Your task to perform on an android device: turn on priority inbox in the gmail app Image 0: 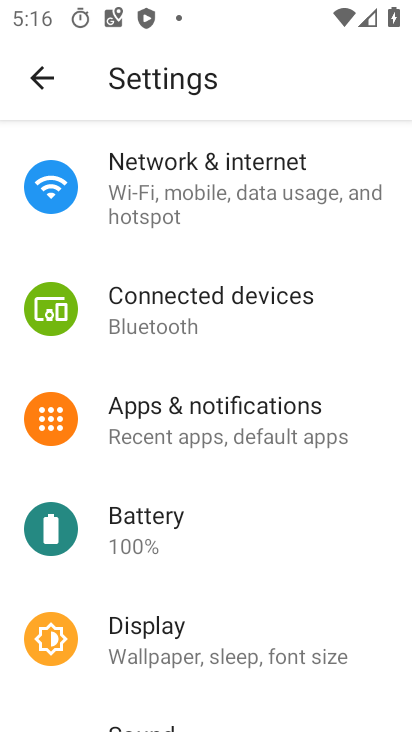
Step 0: press back button
Your task to perform on an android device: turn on priority inbox in the gmail app Image 1: 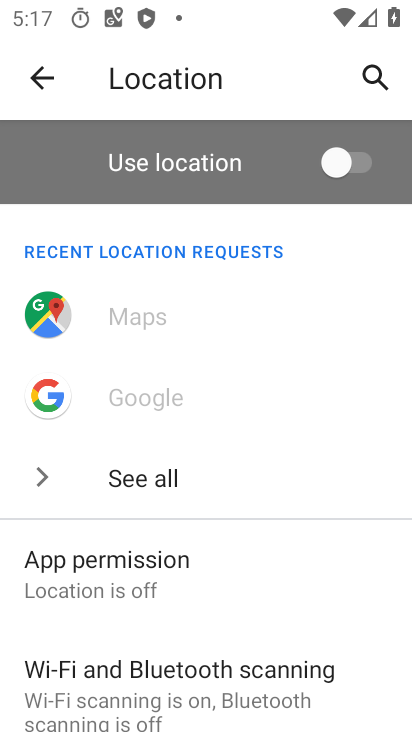
Step 1: press back button
Your task to perform on an android device: turn on priority inbox in the gmail app Image 2: 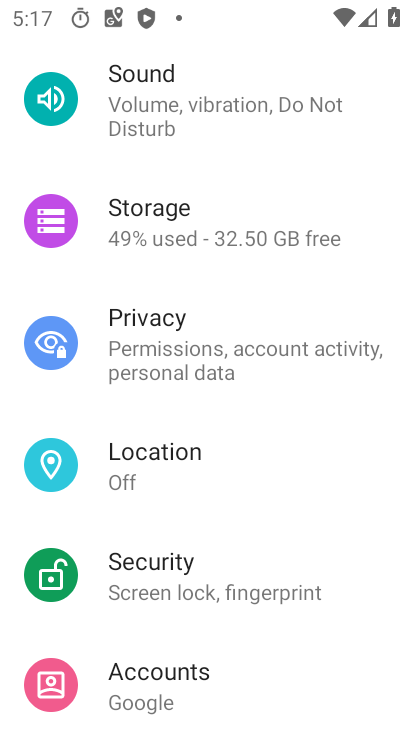
Step 2: press back button
Your task to perform on an android device: turn on priority inbox in the gmail app Image 3: 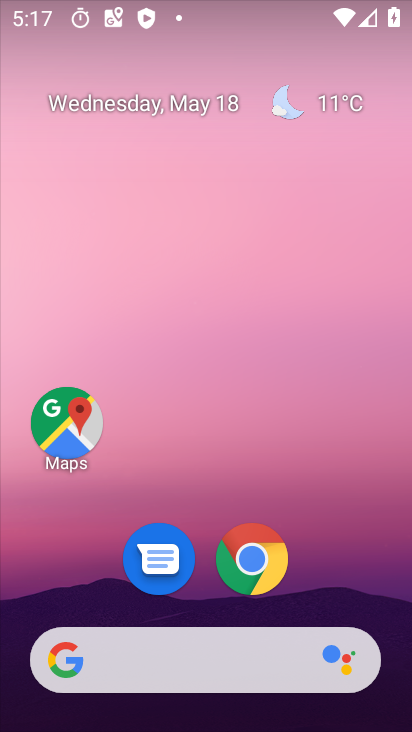
Step 3: drag from (164, 564) to (230, 93)
Your task to perform on an android device: turn on priority inbox in the gmail app Image 4: 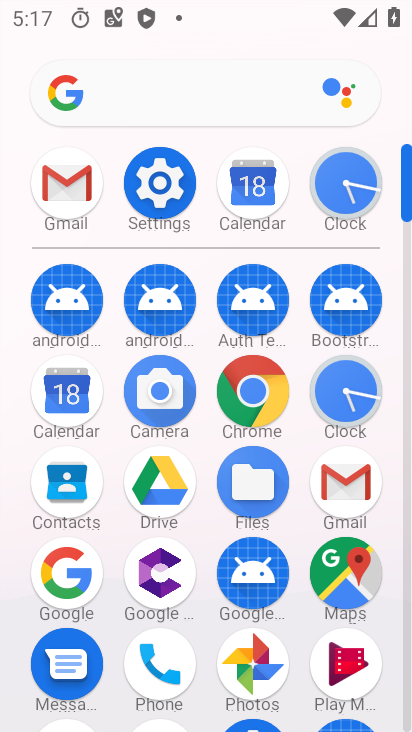
Step 4: click (54, 186)
Your task to perform on an android device: turn on priority inbox in the gmail app Image 5: 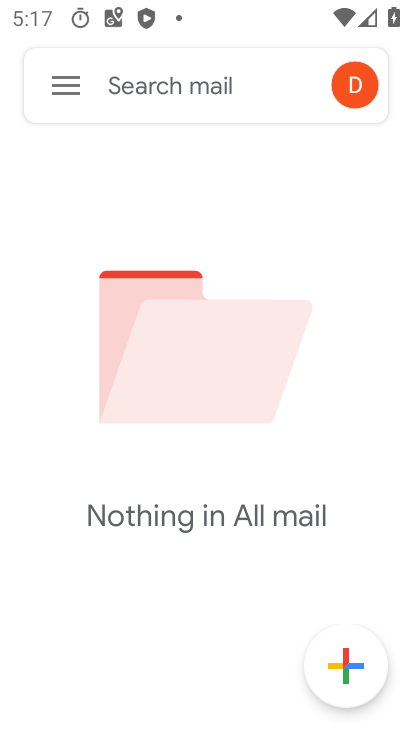
Step 5: click (58, 85)
Your task to perform on an android device: turn on priority inbox in the gmail app Image 6: 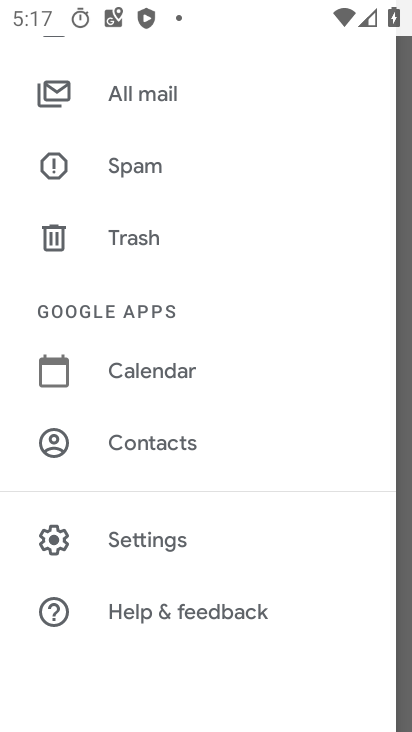
Step 6: click (168, 535)
Your task to perform on an android device: turn on priority inbox in the gmail app Image 7: 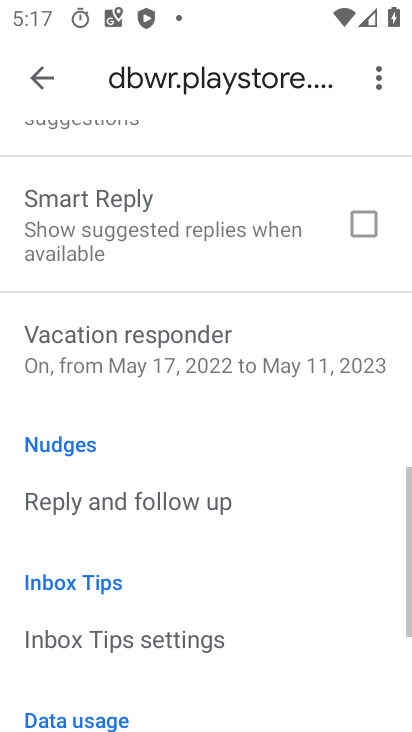
Step 7: drag from (173, 183) to (155, 661)
Your task to perform on an android device: turn on priority inbox in the gmail app Image 8: 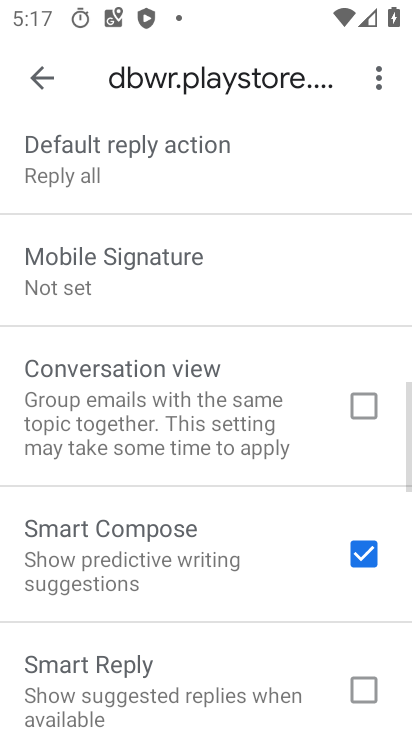
Step 8: drag from (160, 232) to (117, 642)
Your task to perform on an android device: turn on priority inbox in the gmail app Image 9: 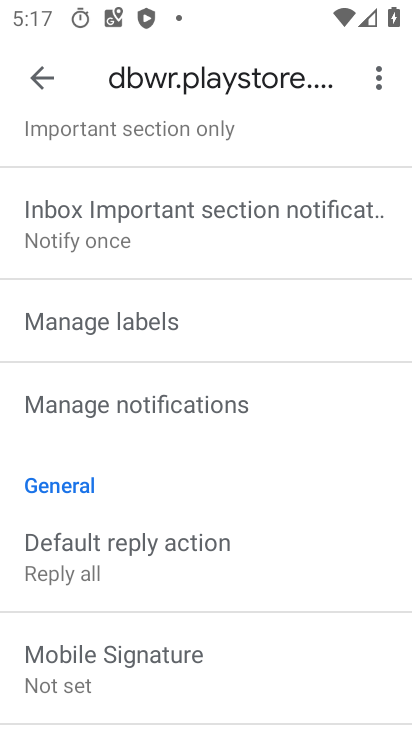
Step 9: drag from (193, 290) to (150, 712)
Your task to perform on an android device: turn on priority inbox in the gmail app Image 10: 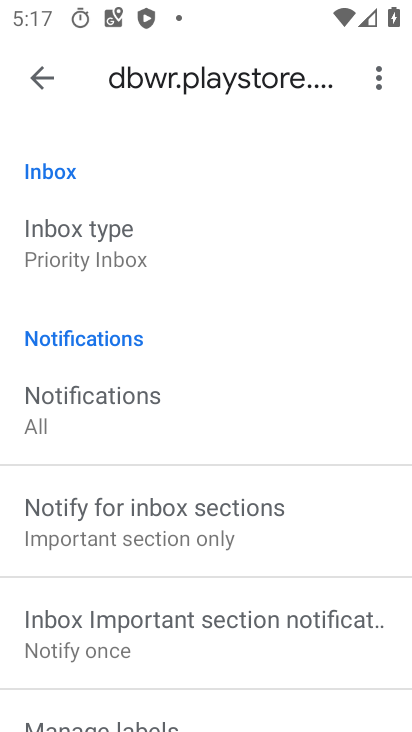
Step 10: click (82, 252)
Your task to perform on an android device: turn on priority inbox in the gmail app Image 11: 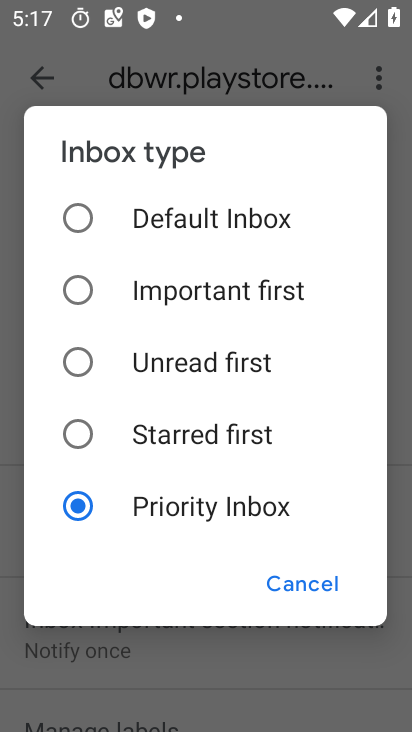
Step 11: task complete